Your task to perform on an android device: Do I have any events today? Image 0: 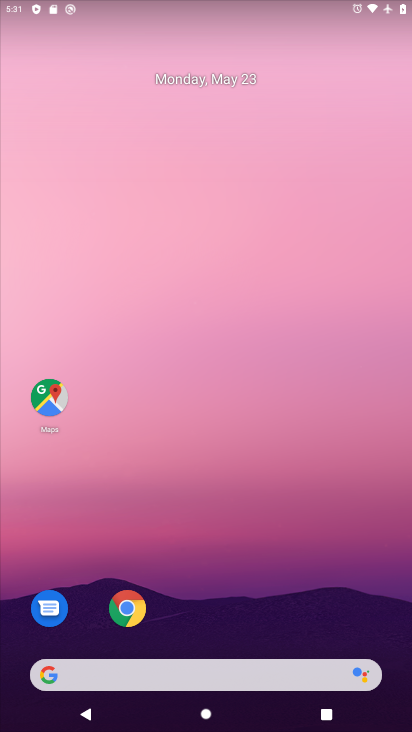
Step 0: drag from (209, 514) to (327, 61)
Your task to perform on an android device: Do I have any events today? Image 1: 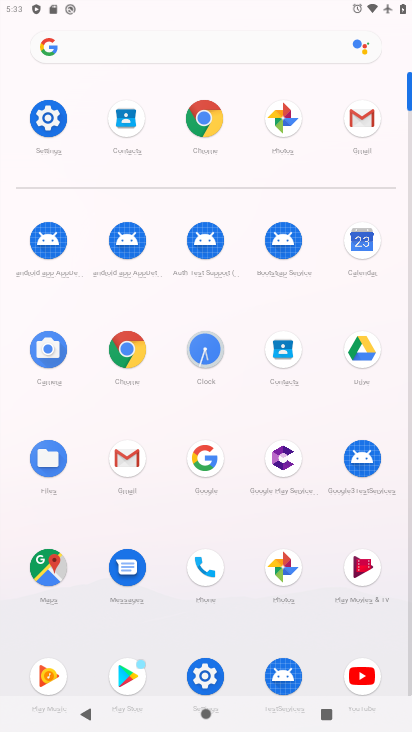
Step 1: drag from (98, 632) to (184, 269)
Your task to perform on an android device: Do I have any events today? Image 2: 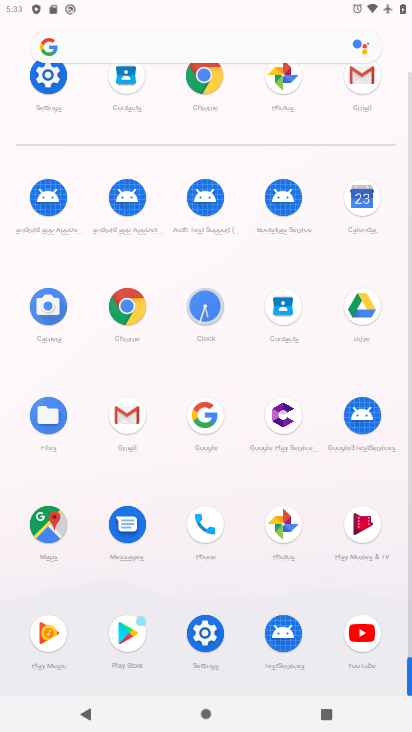
Step 2: drag from (265, 311) to (119, 655)
Your task to perform on an android device: Do I have any events today? Image 3: 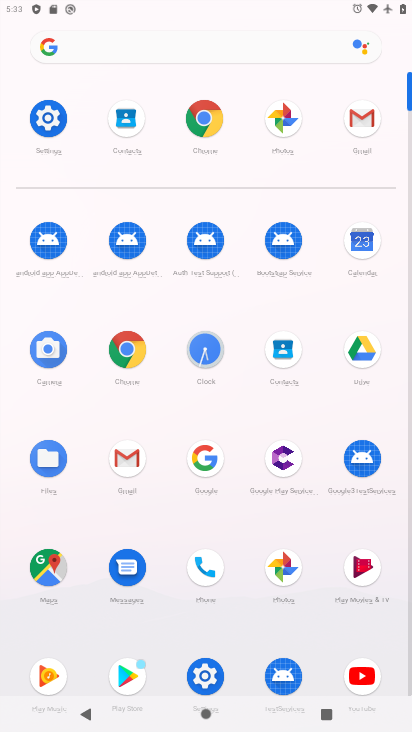
Step 3: click (352, 259)
Your task to perform on an android device: Do I have any events today? Image 4: 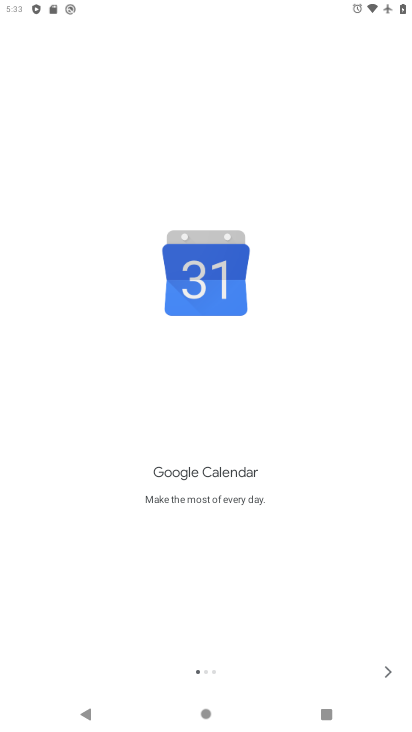
Step 4: click (386, 677)
Your task to perform on an android device: Do I have any events today? Image 5: 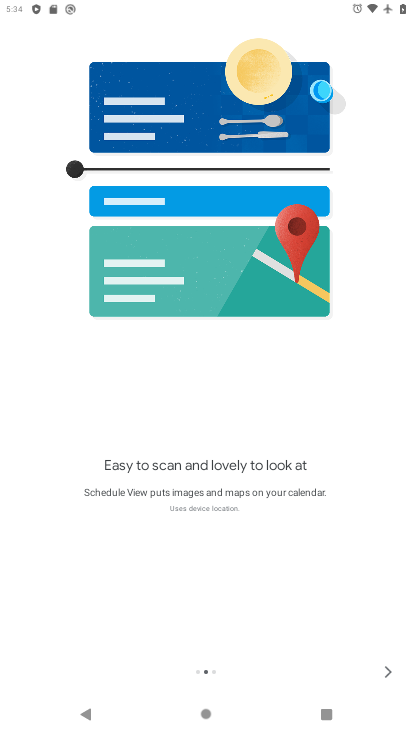
Step 5: click (386, 677)
Your task to perform on an android device: Do I have any events today? Image 6: 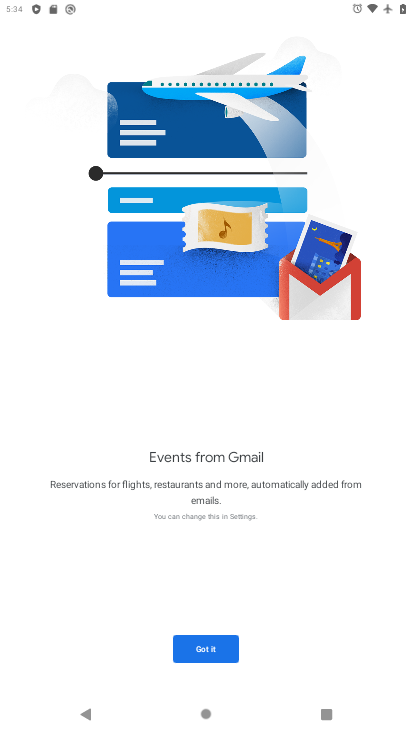
Step 6: click (219, 646)
Your task to perform on an android device: Do I have any events today? Image 7: 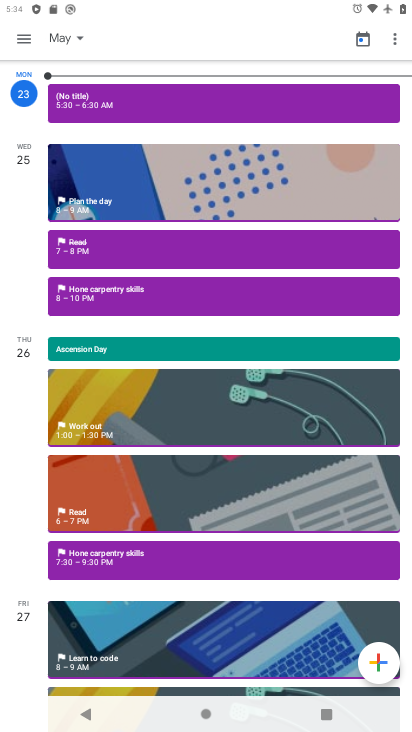
Step 7: task complete